Your task to perform on an android device: Go to accessibility settings Image 0: 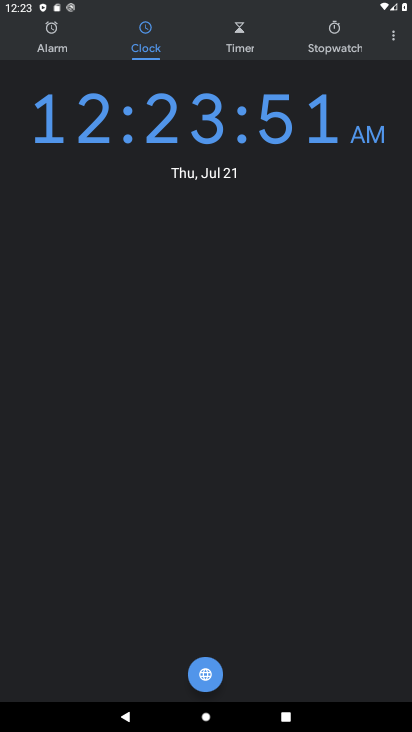
Step 0: press home button
Your task to perform on an android device: Go to accessibility settings Image 1: 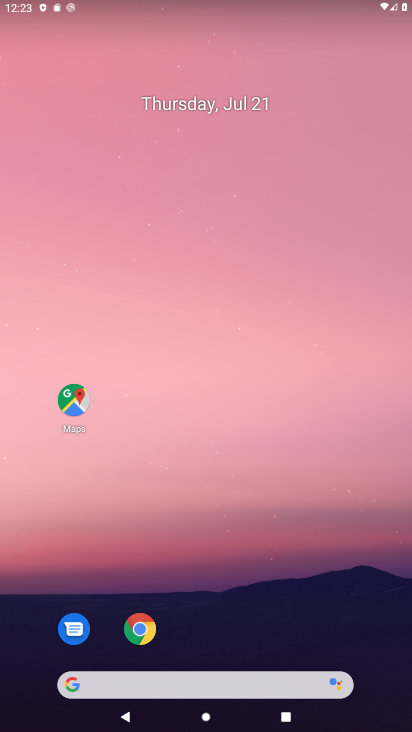
Step 1: drag from (309, 627) to (221, 105)
Your task to perform on an android device: Go to accessibility settings Image 2: 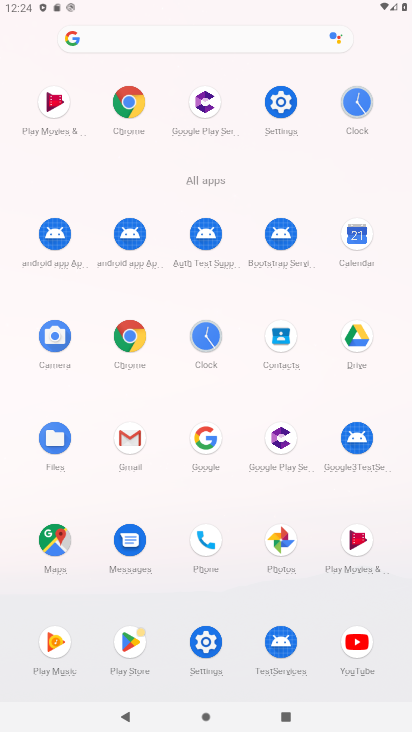
Step 2: click (279, 102)
Your task to perform on an android device: Go to accessibility settings Image 3: 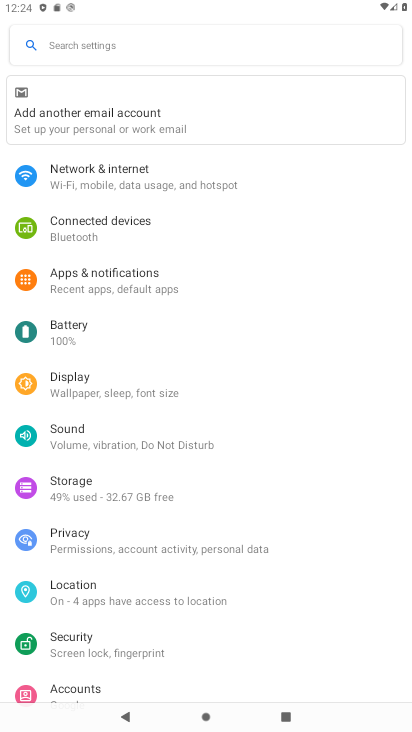
Step 3: drag from (209, 631) to (162, 352)
Your task to perform on an android device: Go to accessibility settings Image 4: 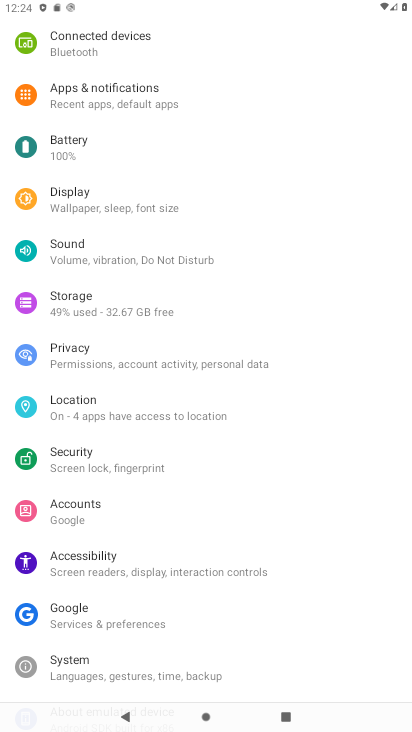
Step 4: click (177, 566)
Your task to perform on an android device: Go to accessibility settings Image 5: 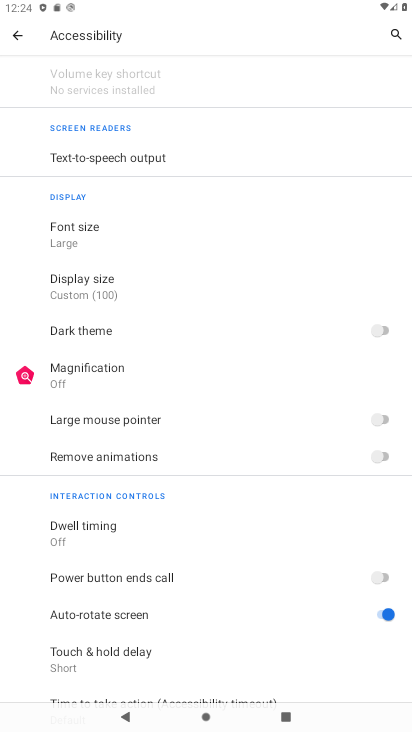
Step 5: task complete